Your task to perform on an android device: empty trash in google photos Image 0: 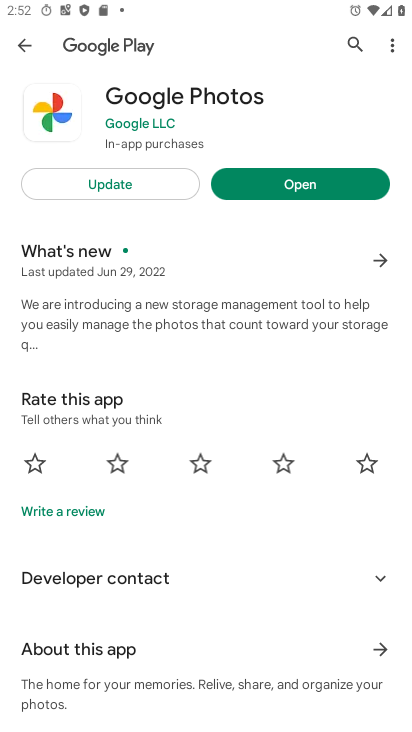
Step 0: press home button
Your task to perform on an android device: empty trash in google photos Image 1: 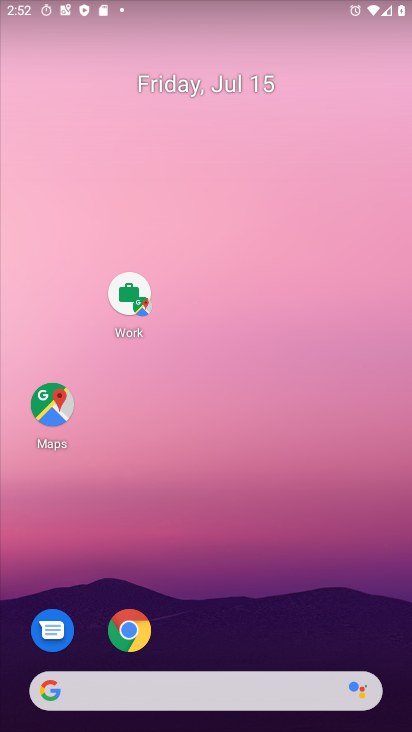
Step 1: drag from (229, 634) to (293, 167)
Your task to perform on an android device: empty trash in google photos Image 2: 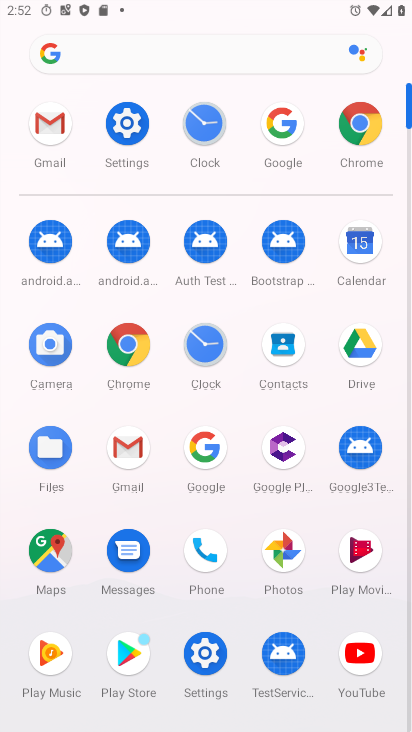
Step 2: click (279, 539)
Your task to perform on an android device: empty trash in google photos Image 3: 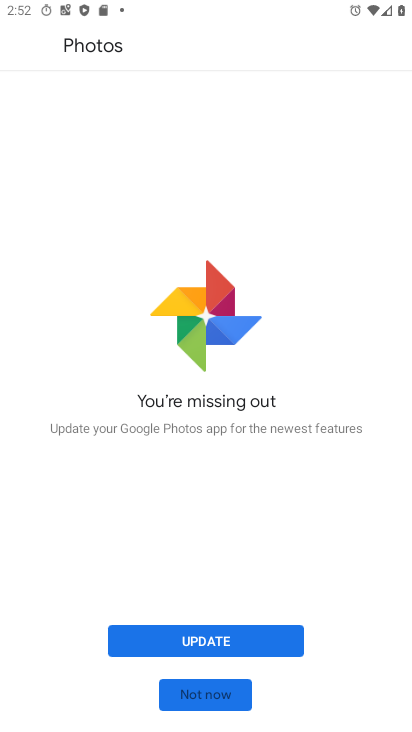
Step 3: click (189, 695)
Your task to perform on an android device: empty trash in google photos Image 4: 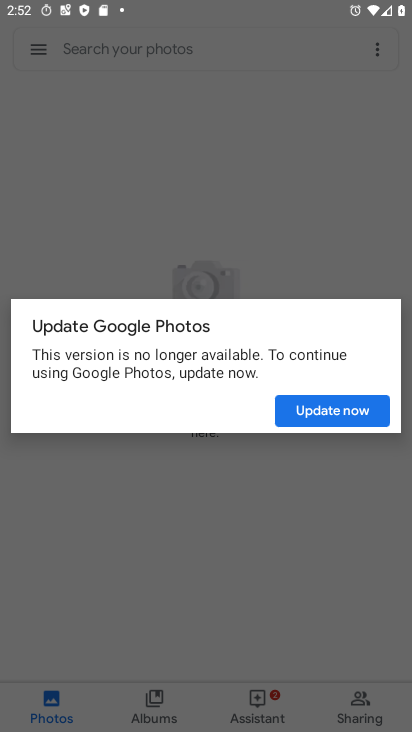
Step 4: click (300, 502)
Your task to perform on an android device: empty trash in google photos Image 5: 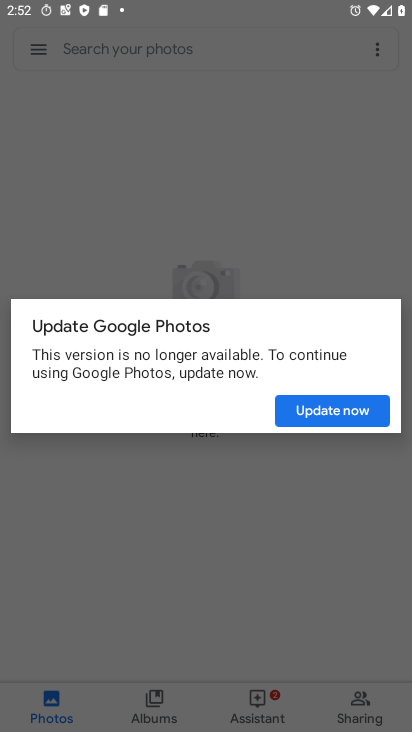
Step 5: click (323, 406)
Your task to perform on an android device: empty trash in google photos Image 6: 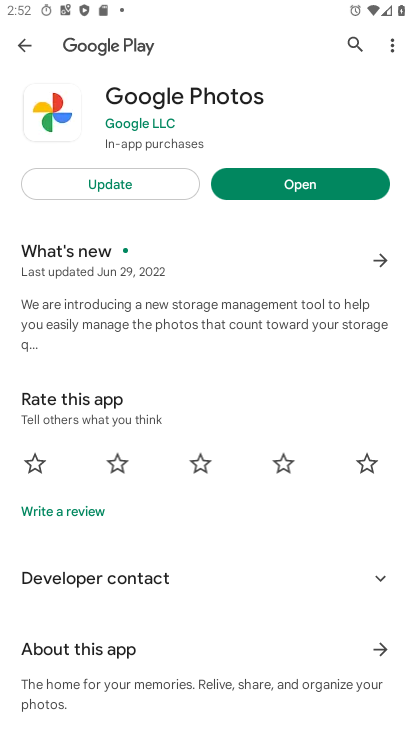
Step 6: click (253, 178)
Your task to perform on an android device: empty trash in google photos Image 7: 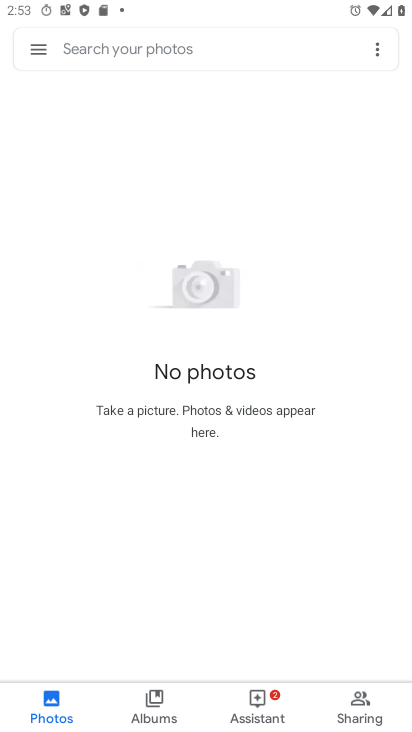
Step 7: click (38, 48)
Your task to perform on an android device: empty trash in google photos Image 8: 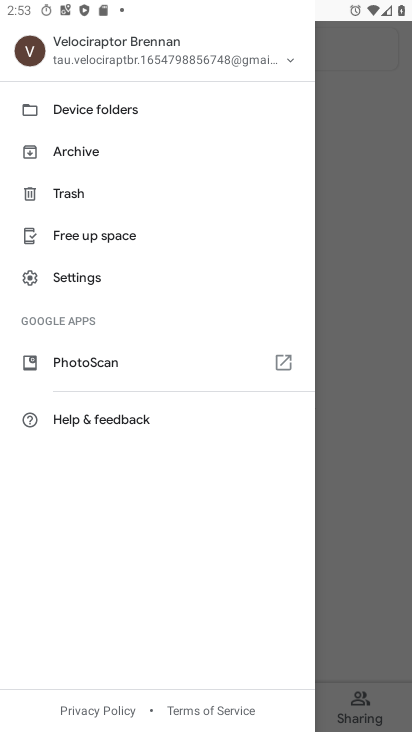
Step 8: click (88, 194)
Your task to perform on an android device: empty trash in google photos Image 9: 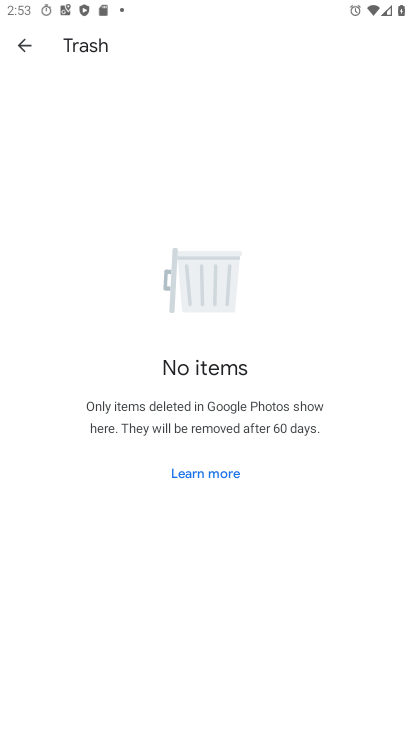
Step 9: task complete